Your task to perform on an android device: open app "Adobe Acrobat Reader: Edit PDF" Image 0: 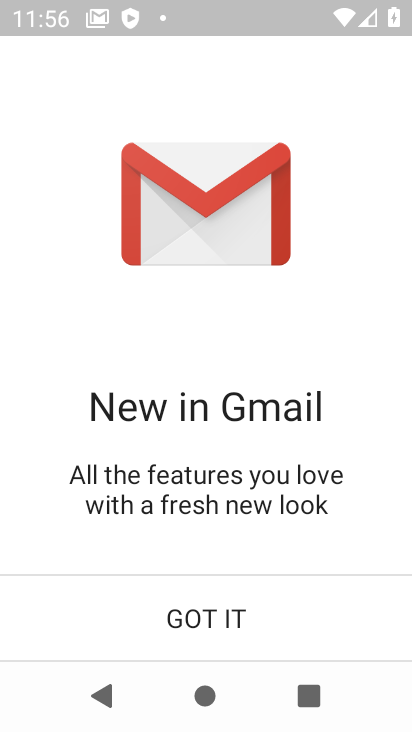
Step 0: press home button
Your task to perform on an android device: open app "Adobe Acrobat Reader: Edit PDF" Image 1: 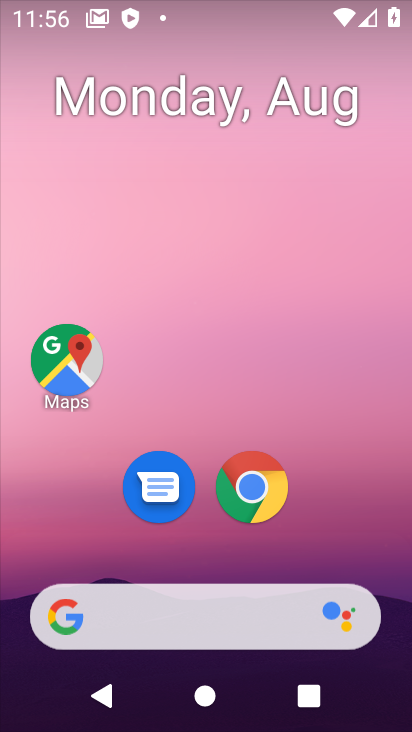
Step 1: drag from (255, 597) to (227, 45)
Your task to perform on an android device: open app "Adobe Acrobat Reader: Edit PDF" Image 2: 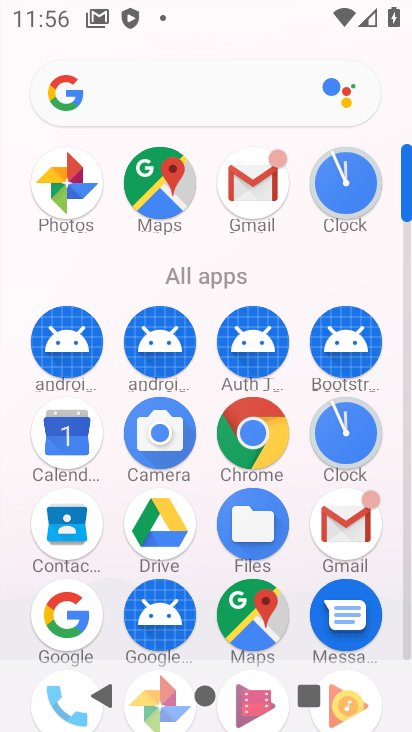
Step 2: drag from (229, 499) to (287, 110)
Your task to perform on an android device: open app "Adobe Acrobat Reader: Edit PDF" Image 3: 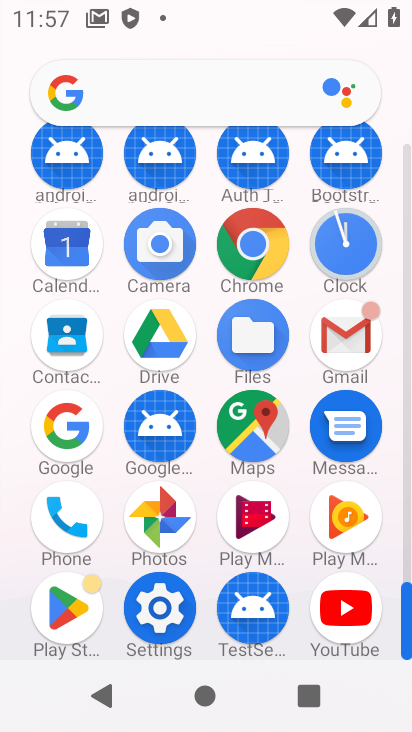
Step 3: click (84, 604)
Your task to perform on an android device: open app "Adobe Acrobat Reader: Edit PDF" Image 4: 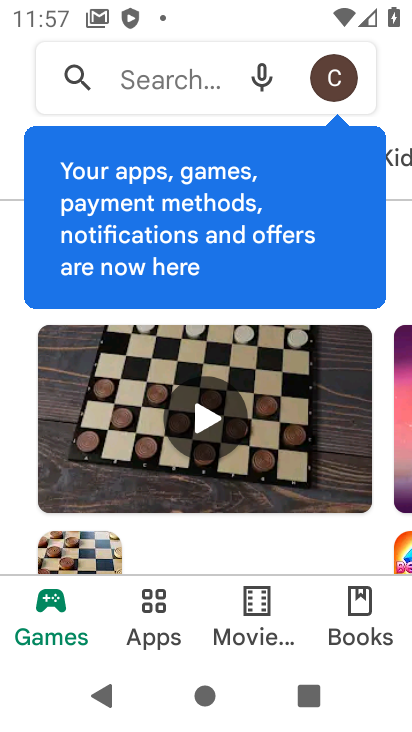
Step 4: click (116, 74)
Your task to perform on an android device: open app "Adobe Acrobat Reader: Edit PDF" Image 5: 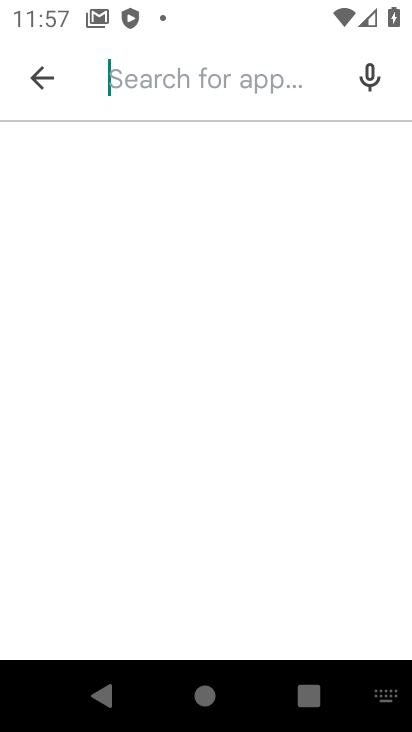
Step 5: type "Adobe Acrobat Reader: Edit PDF"
Your task to perform on an android device: open app "Adobe Acrobat Reader: Edit PDF" Image 6: 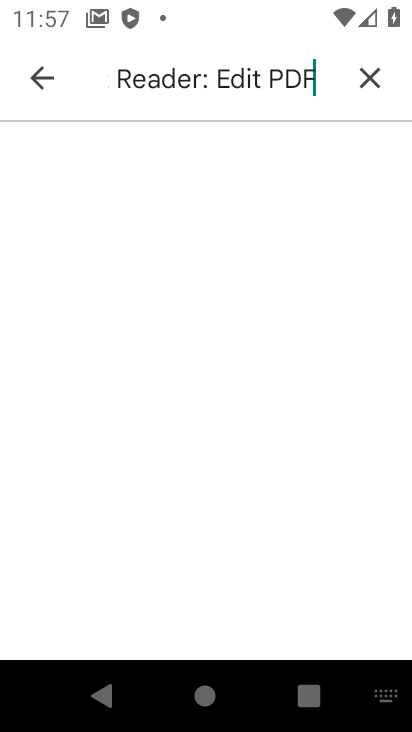
Step 6: type ""
Your task to perform on an android device: open app "Adobe Acrobat Reader: Edit PDF" Image 7: 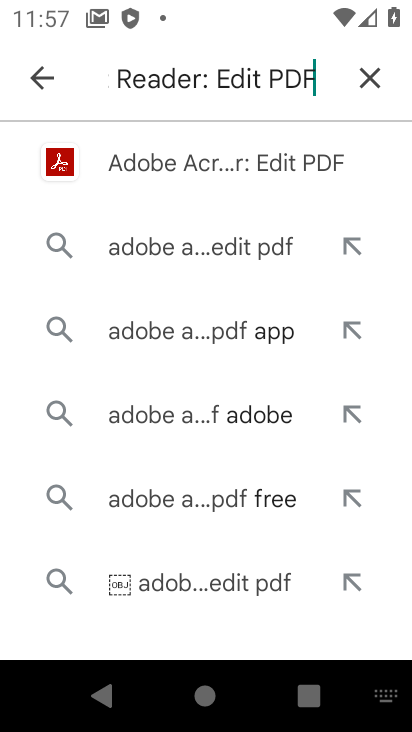
Step 7: click (232, 171)
Your task to perform on an android device: open app "Adobe Acrobat Reader: Edit PDF" Image 8: 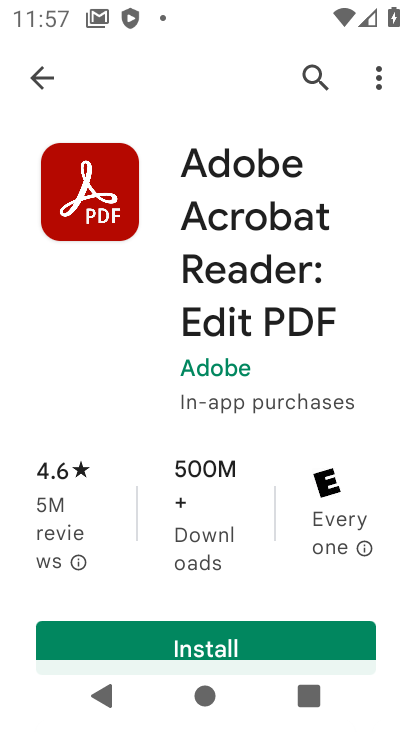
Step 8: task complete